Your task to perform on an android device: Check the weather Image 0: 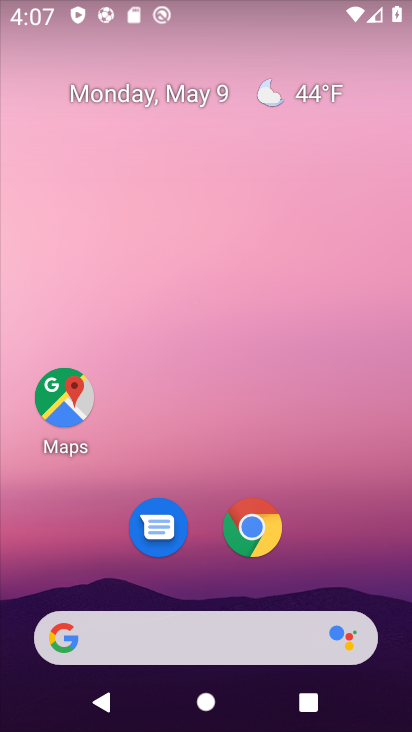
Step 0: click (323, 99)
Your task to perform on an android device: Check the weather Image 1: 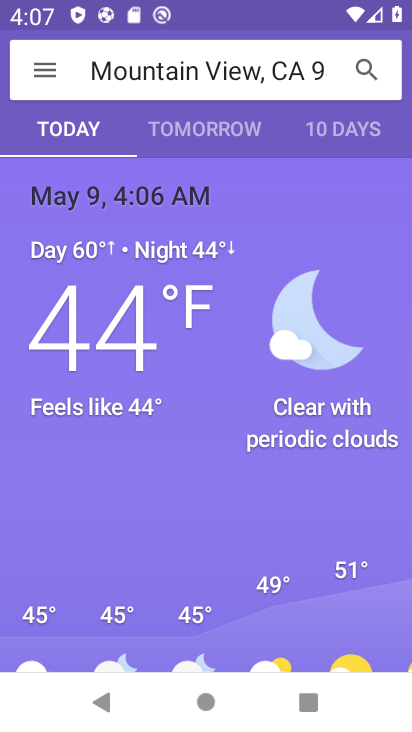
Step 1: task complete